Your task to perform on an android device: see sites visited before in the chrome app Image 0: 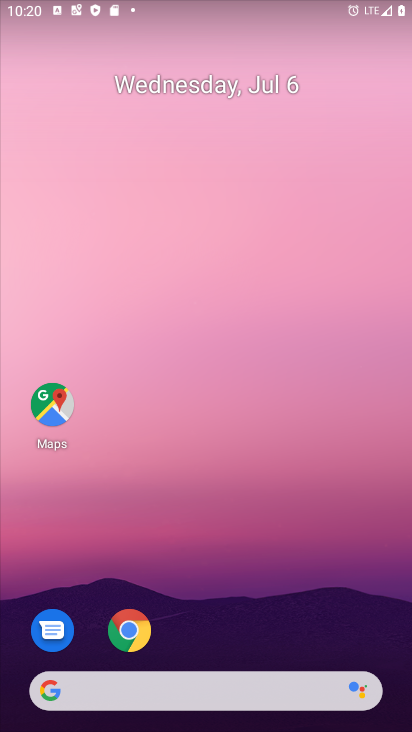
Step 0: click (129, 627)
Your task to perform on an android device: see sites visited before in the chrome app Image 1: 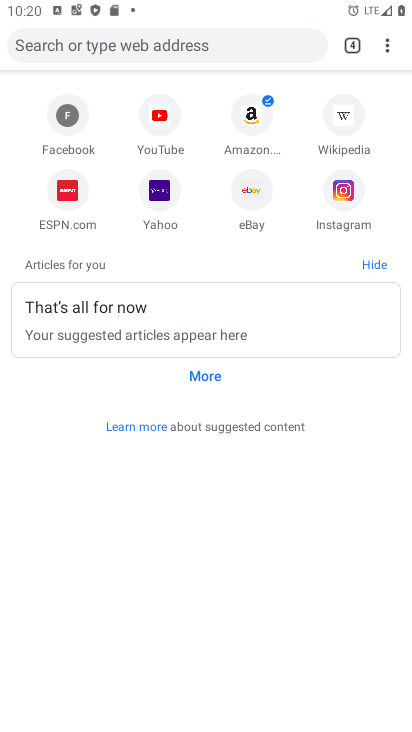
Step 1: click (385, 48)
Your task to perform on an android device: see sites visited before in the chrome app Image 2: 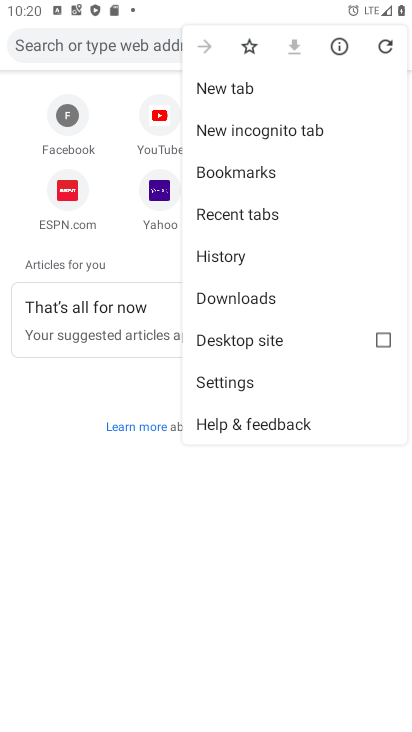
Step 2: click (238, 243)
Your task to perform on an android device: see sites visited before in the chrome app Image 3: 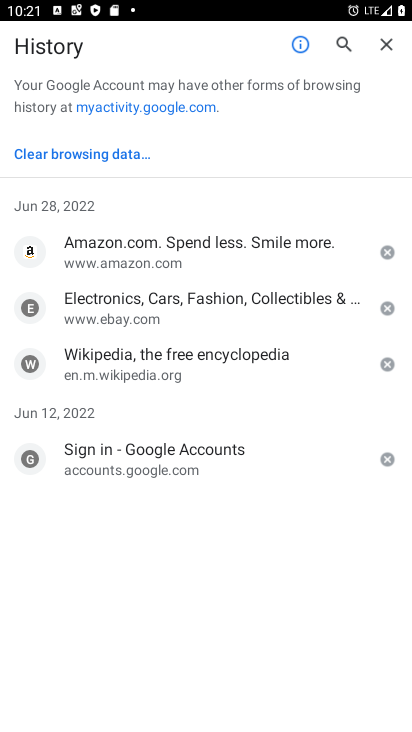
Step 3: task complete